Your task to perform on an android device: turn on the 12-hour format for clock Image 0: 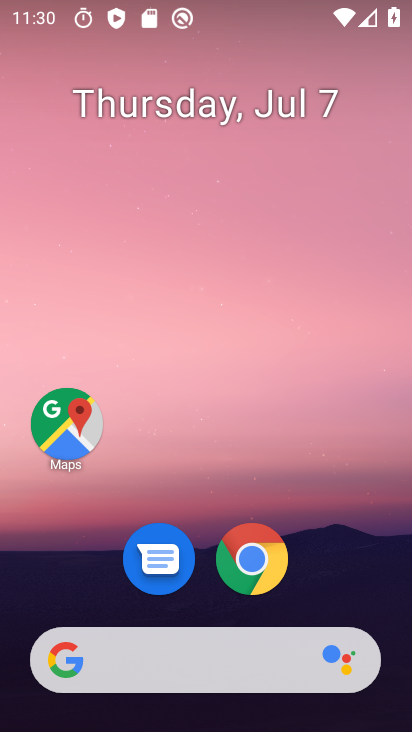
Step 0: drag from (388, 578) to (395, 134)
Your task to perform on an android device: turn on the 12-hour format for clock Image 1: 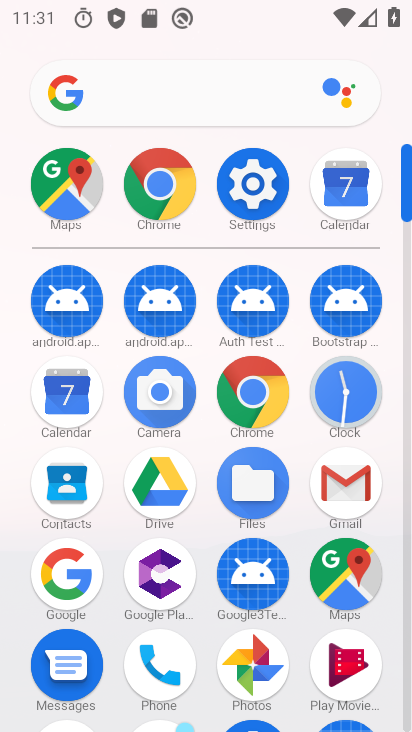
Step 1: click (349, 401)
Your task to perform on an android device: turn on the 12-hour format for clock Image 2: 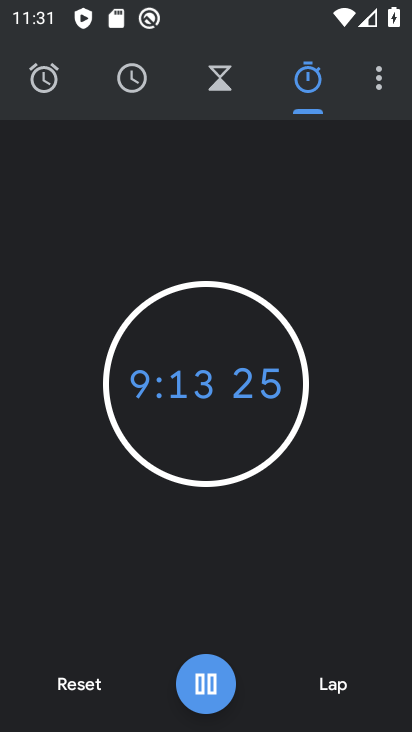
Step 2: click (381, 96)
Your task to perform on an android device: turn on the 12-hour format for clock Image 3: 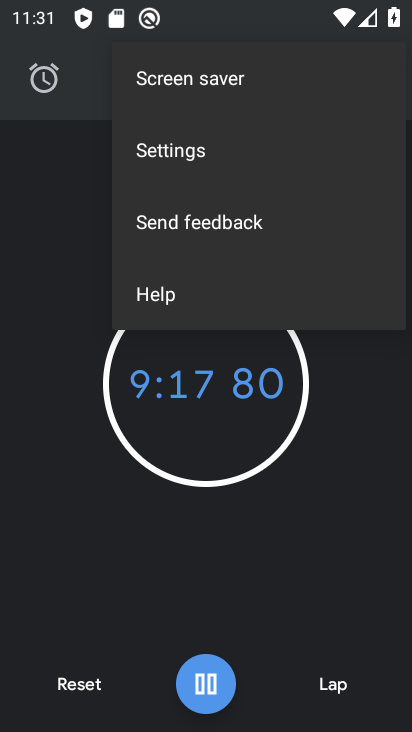
Step 3: click (212, 161)
Your task to perform on an android device: turn on the 12-hour format for clock Image 4: 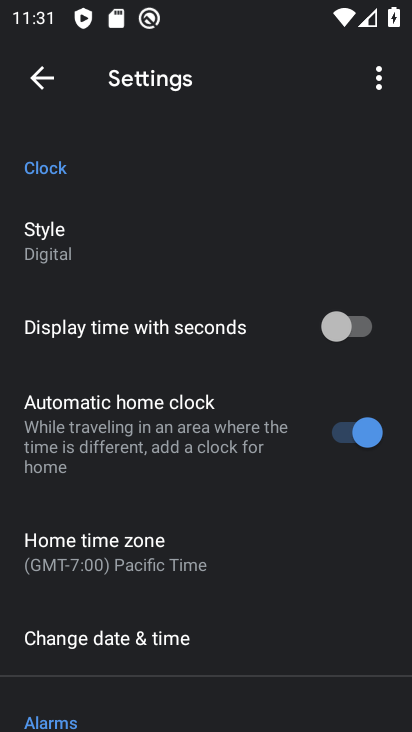
Step 4: drag from (285, 554) to (289, 366)
Your task to perform on an android device: turn on the 12-hour format for clock Image 5: 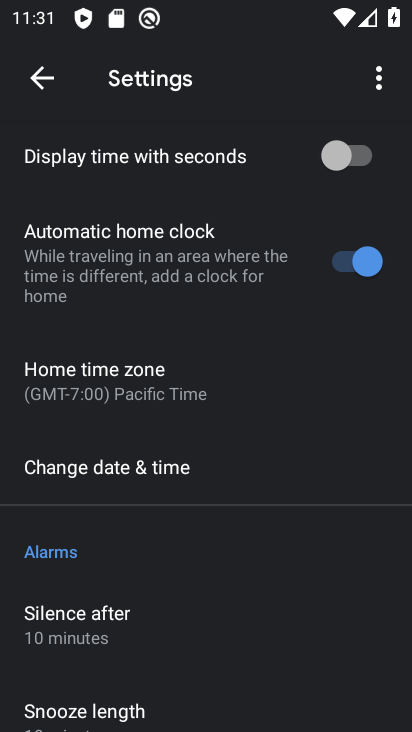
Step 5: drag from (311, 513) to (297, 331)
Your task to perform on an android device: turn on the 12-hour format for clock Image 6: 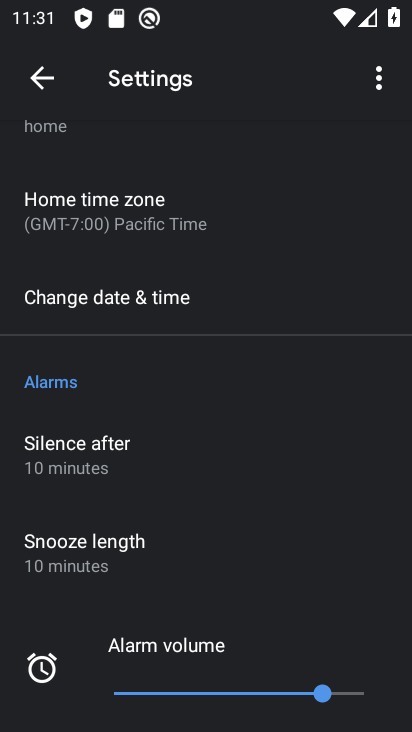
Step 6: drag from (322, 532) to (310, 364)
Your task to perform on an android device: turn on the 12-hour format for clock Image 7: 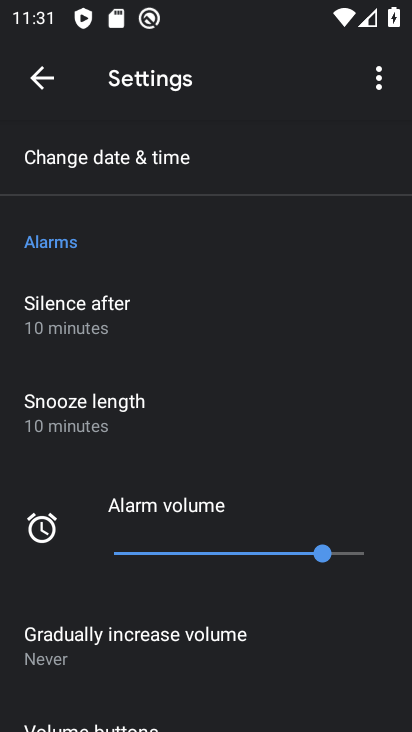
Step 7: drag from (339, 619) to (339, 421)
Your task to perform on an android device: turn on the 12-hour format for clock Image 8: 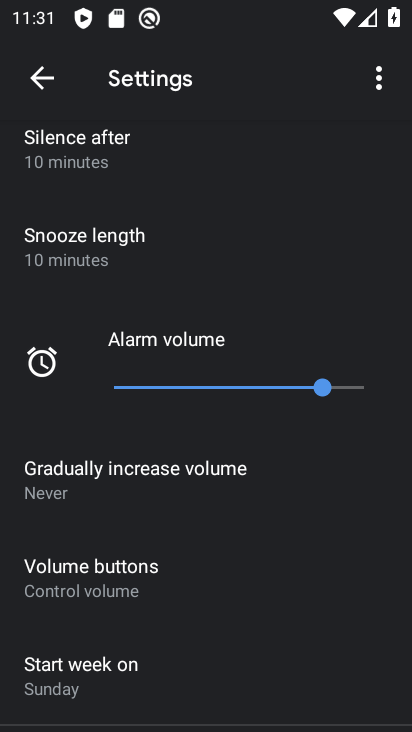
Step 8: drag from (332, 556) to (329, 401)
Your task to perform on an android device: turn on the 12-hour format for clock Image 9: 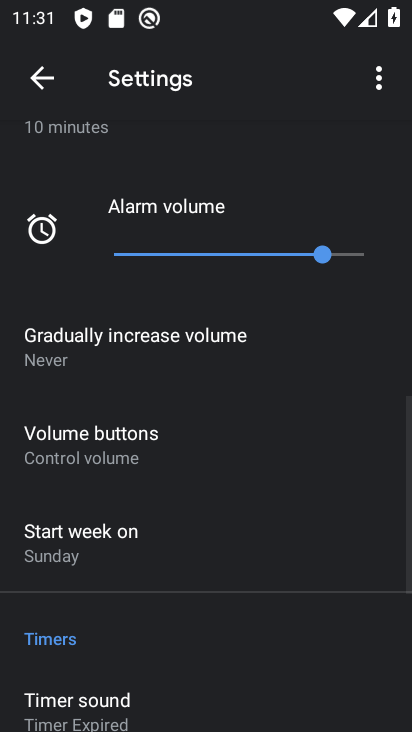
Step 9: drag from (356, 190) to (372, 440)
Your task to perform on an android device: turn on the 12-hour format for clock Image 10: 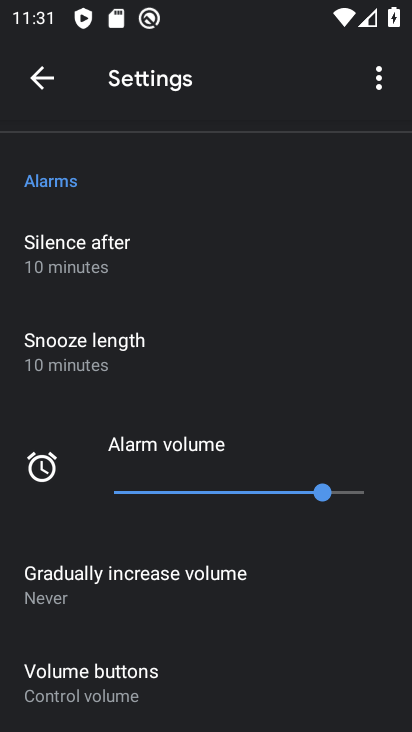
Step 10: drag from (353, 242) to (367, 456)
Your task to perform on an android device: turn on the 12-hour format for clock Image 11: 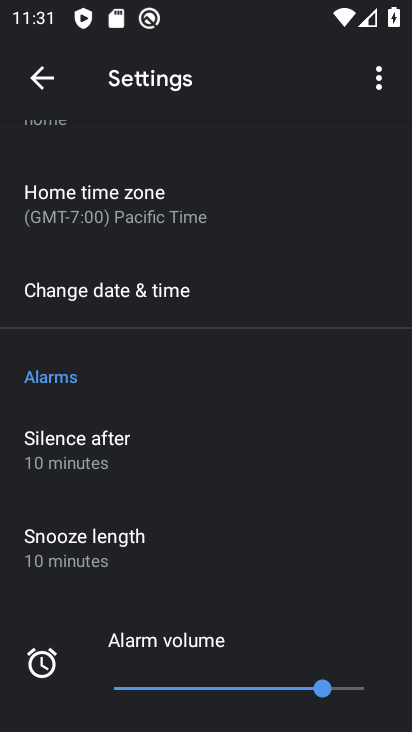
Step 11: drag from (356, 254) to (351, 409)
Your task to perform on an android device: turn on the 12-hour format for clock Image 12: 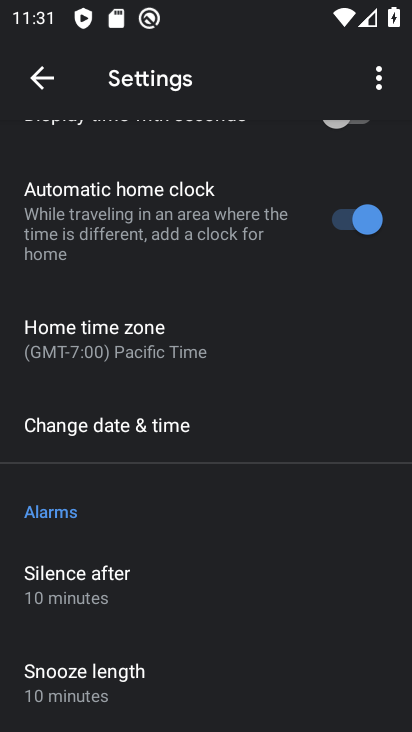
Step 12: click (177, 440)
Your task to perform on an android device: turn on the 12-hour format for clock Image 13: 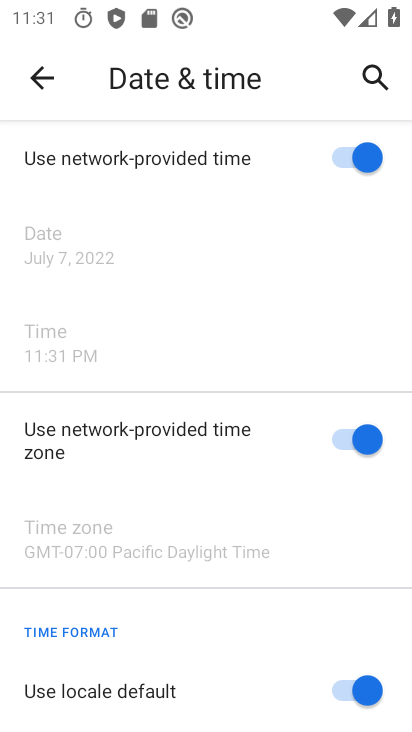
Step 13: task complete